Your task to perform on an android device: open app "DoorDash - Dasher" Image 0: 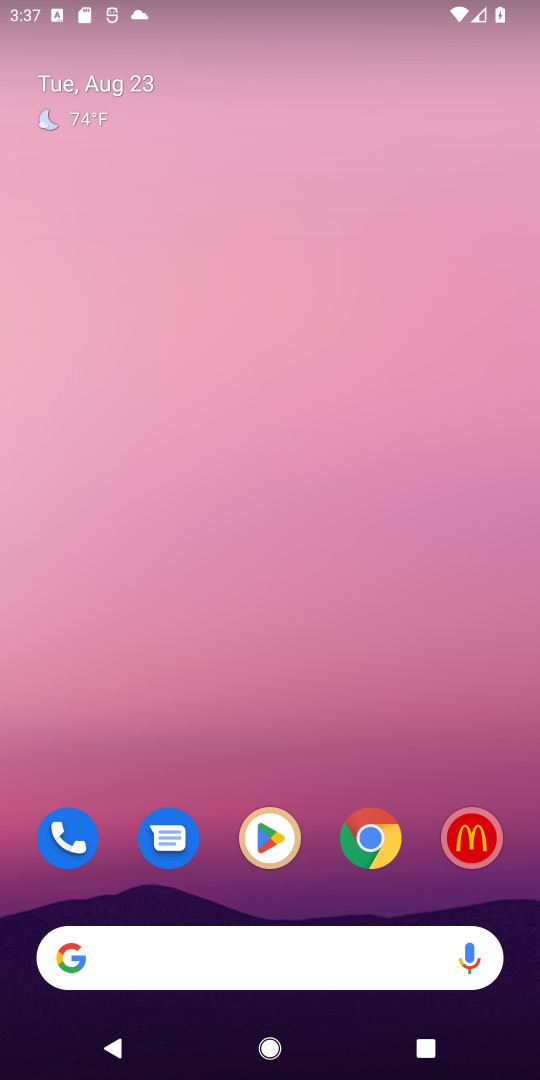
Step 0: click (272, 840)
Your task to perform on an android device: open app "DoorDash - Dasher" Image 1: 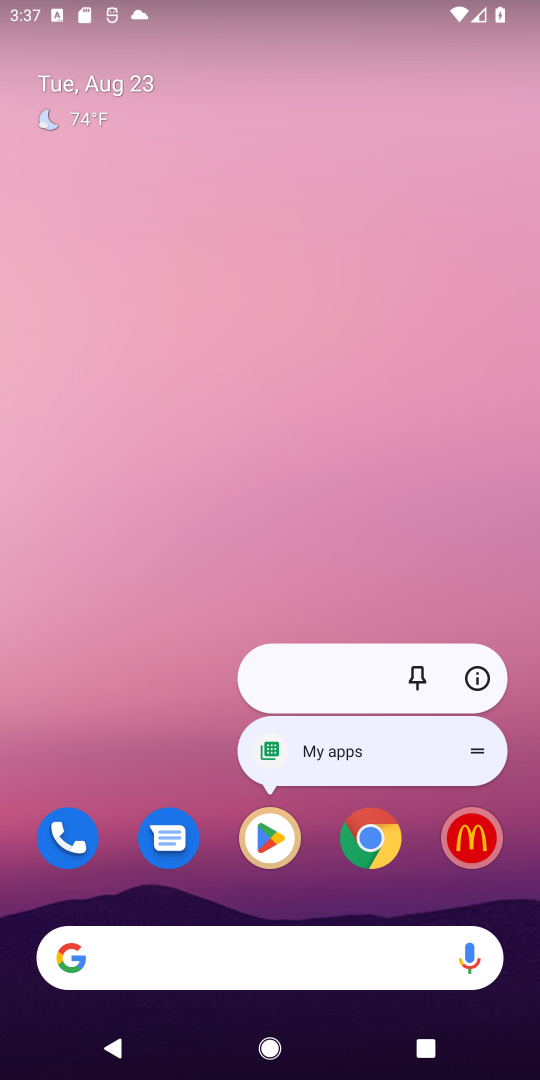
Step 1: click (272, 840)
Your task to perform on an android device: open app "DoorDash - Dasher" Image 2: 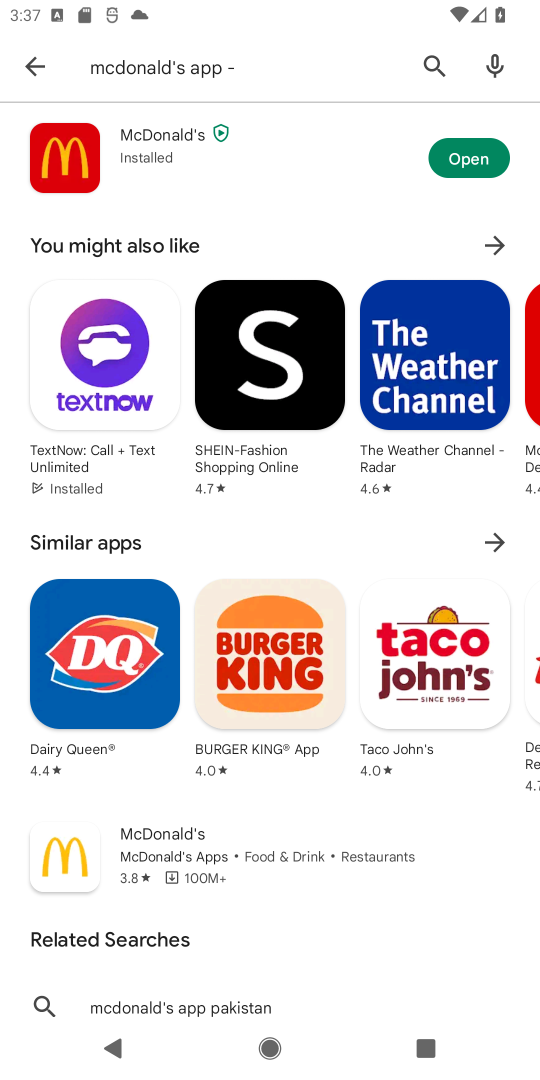
Step 2: click (16, 66)
Your task to perform on an android device: open app "DoorDash - Dasher" Image 3: 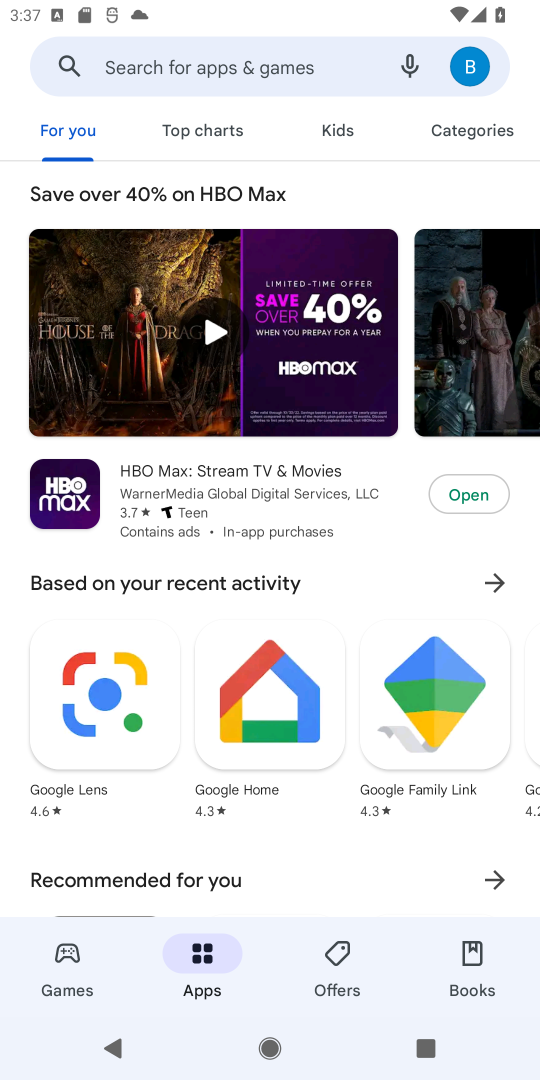
Step 3: click (146, 84)
Your task to perform on an android device: open app "DoorDash - Dasher" Image 4: 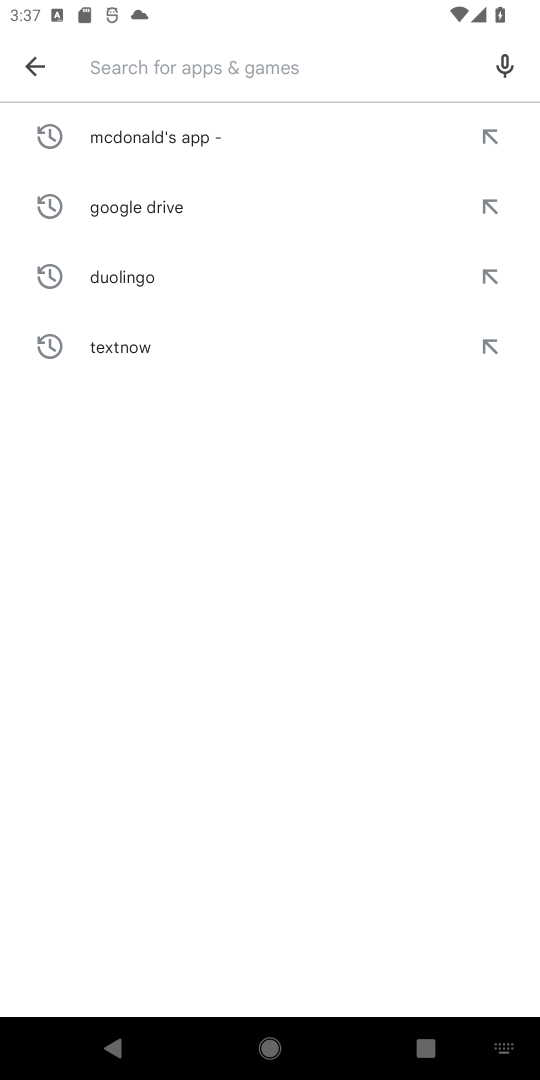
Step 4: type "DoorDash"
Your task to perform on an android device: open app "DoorDash - Dasher" Image 5: 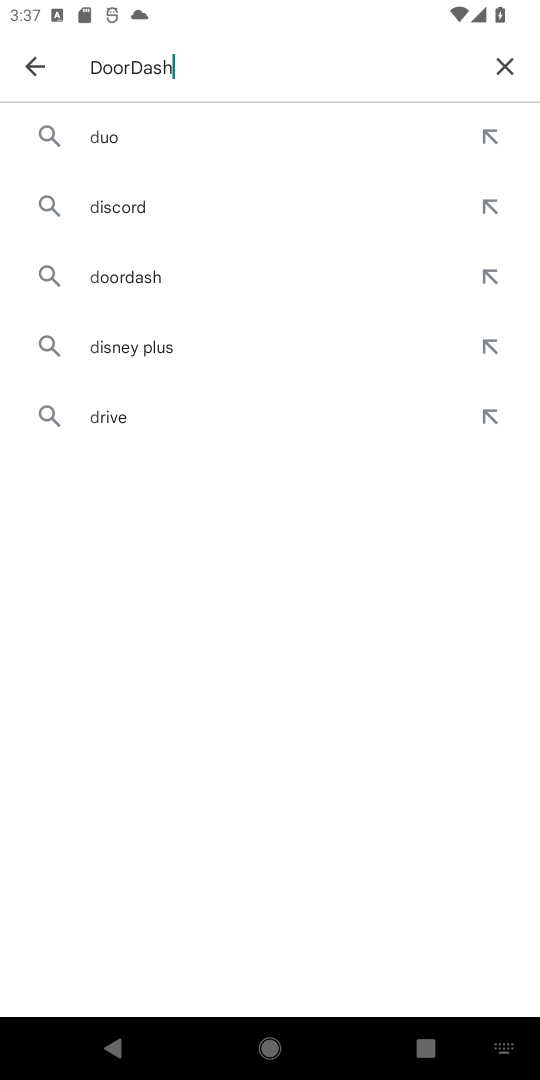
Step 5: type ""
Your task to perform on an android device: open app "DoorDash - Dasher" Image 6: 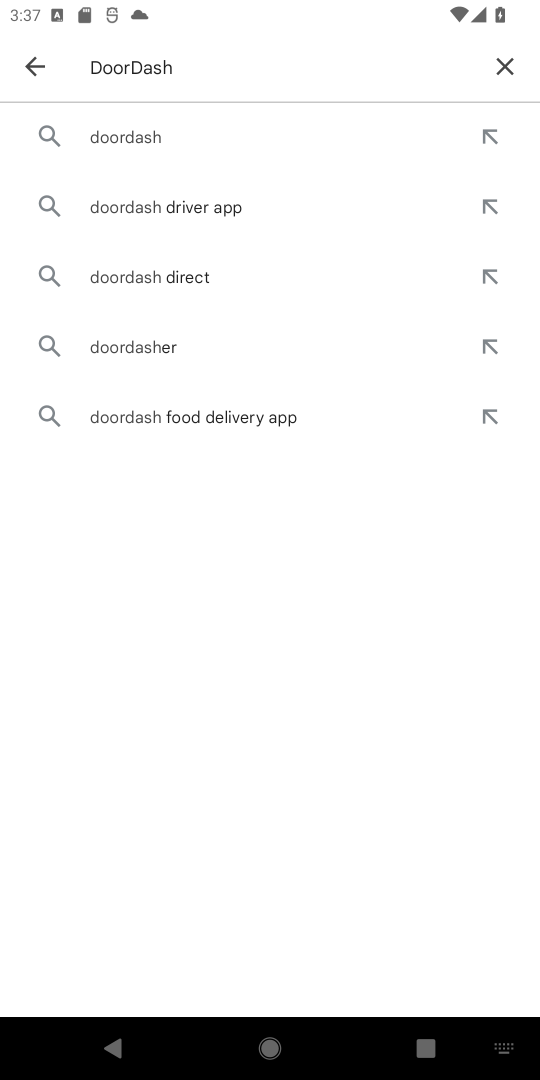
Step 6: click (124, 136)
Your task to perform on an android device: open app "DoorDash - Dasher" Image 7: 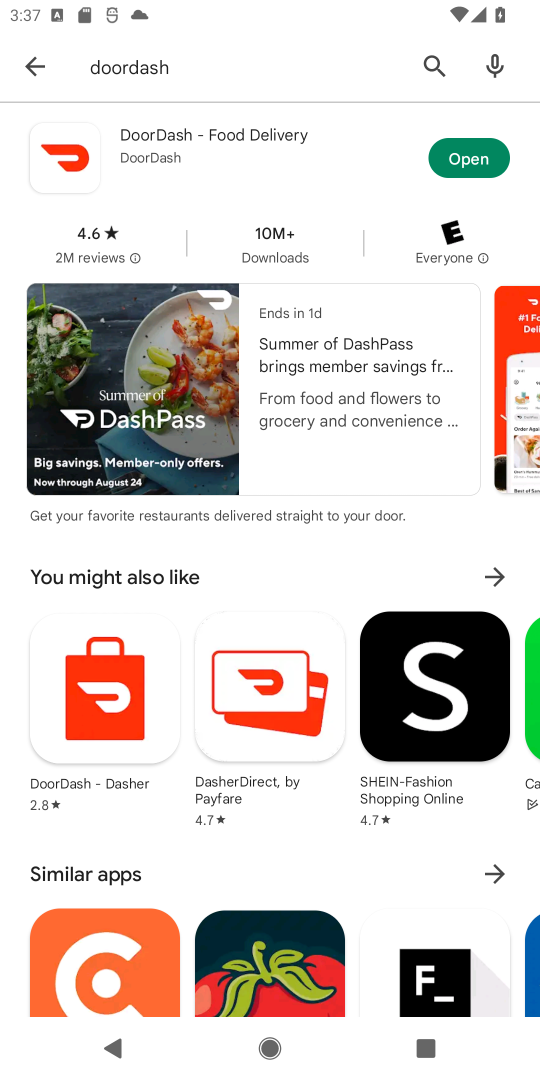
Step 7: click (461, 154)
Your task to perform on an android device: open app "DoorDash - Dasher" Image 8: 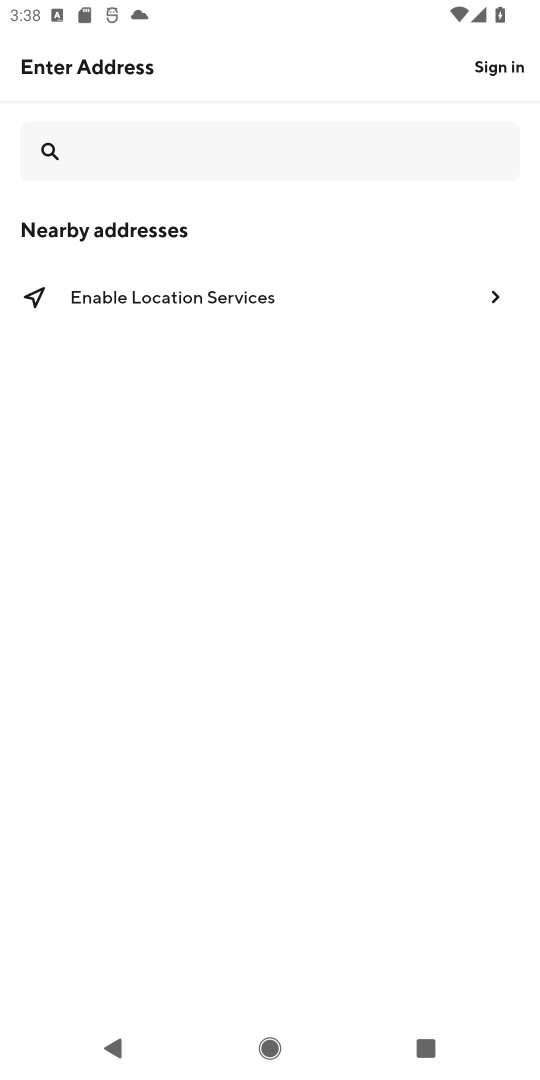
Step 8: task complete